Your task to perform on an android device: Do I have any events today? Image 0: 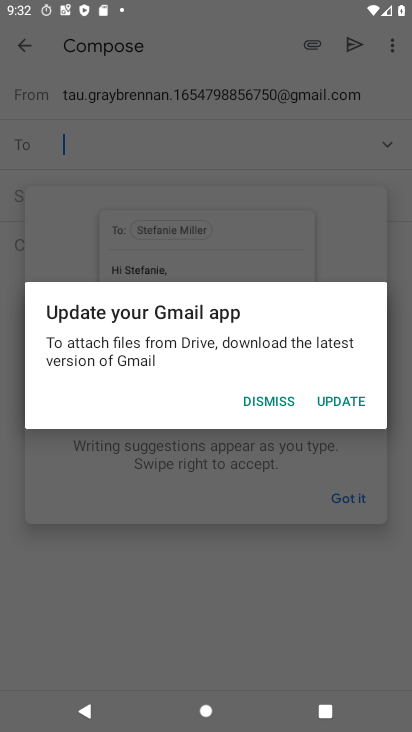
Step 0: press home button
Your task to perform on an android device: Do I have any events today? Image 1: 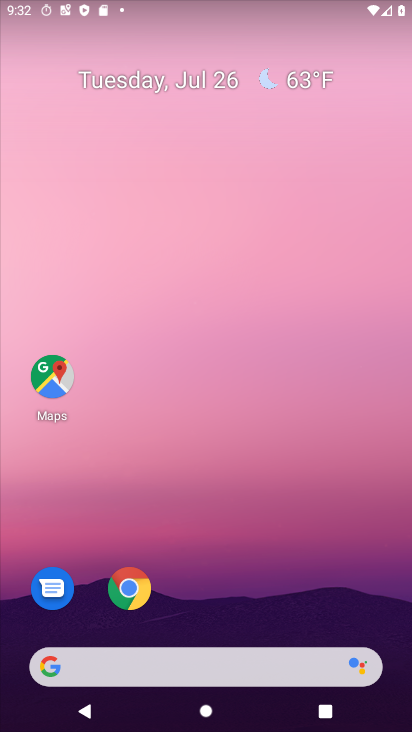
Step 1: click (113, 79)
Your task to perform on an android device: Do I have any events today? Image 2: 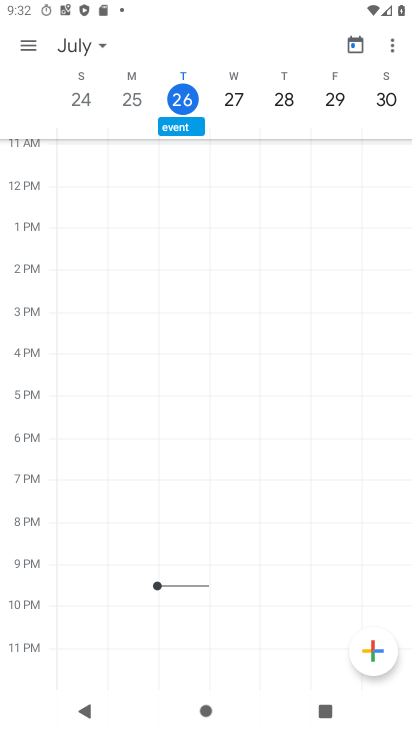
Step 2: task complete